Your task to perform on an android device: show emergency info Image 0: 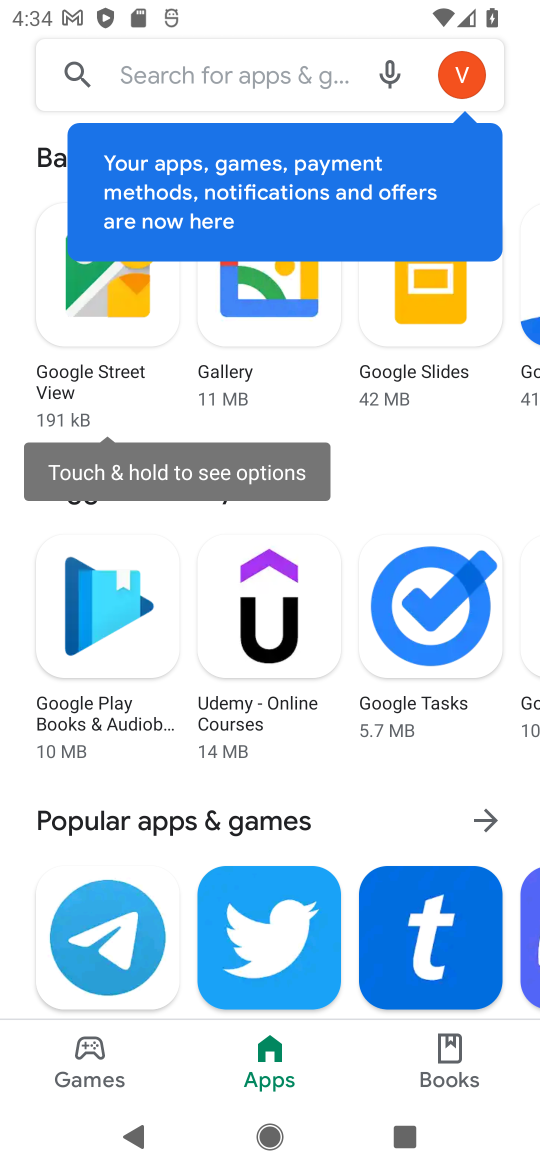
Step 0: task complete